Your task to perform on an android device: change the clock style Image 0: 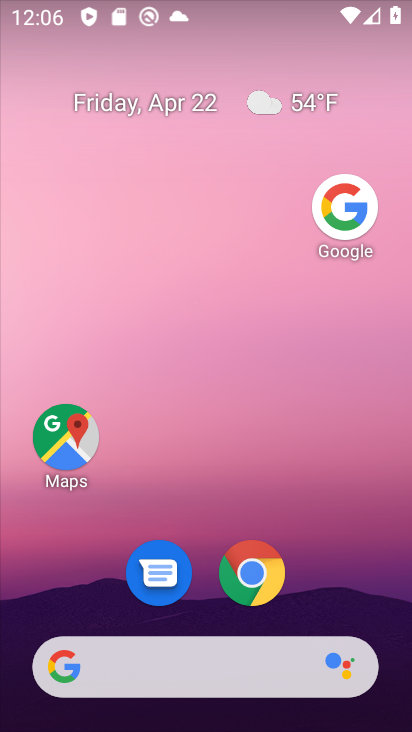
Step 0: drag from (236, 589) to (335, 11)
Your task to perform on an android device: change the clock style Image 1: 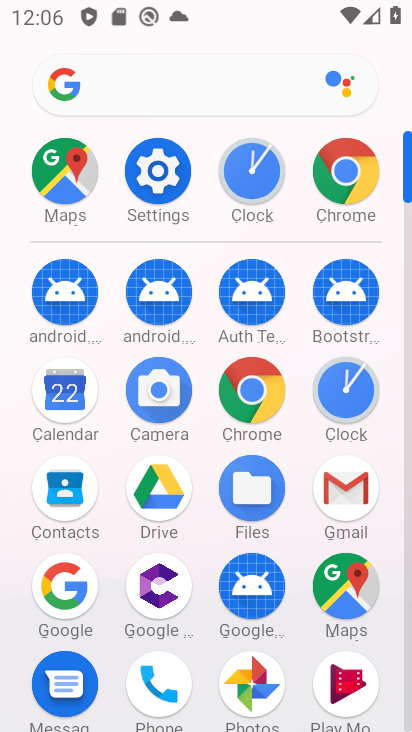
Step 1: click (245, 167)
Your task to perform on an android device: change the clock style Image 2: 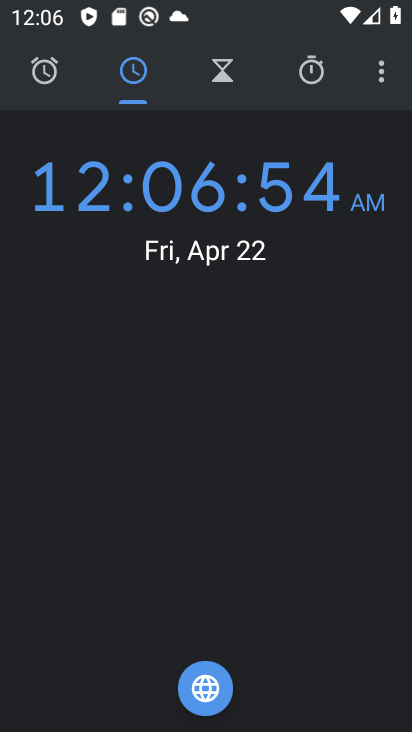
Step 2: click (381, 77)
Your task to perform on an android device: change the clock style Image 3: 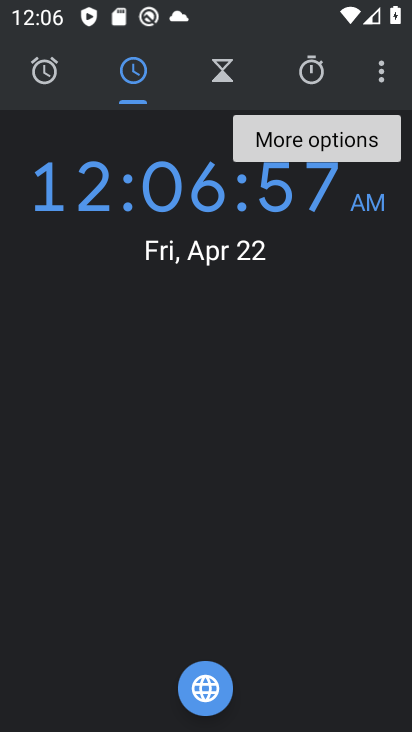
Step 3: click (382, 83)
Your task to perform on an android device: change the clock style Image 4: 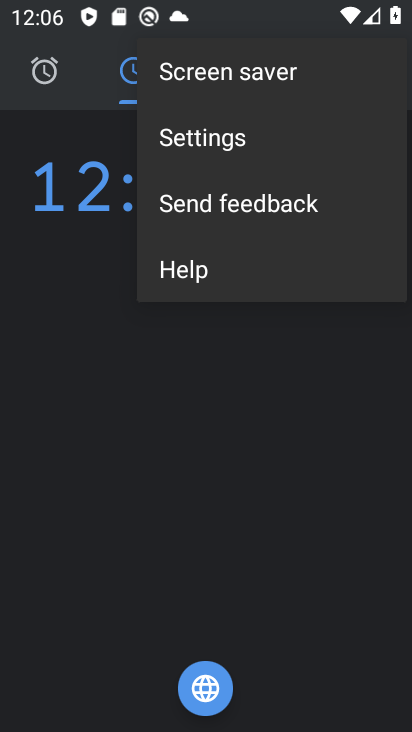
Step 4: click (212, 149)
Your task to perform on an android device: change the clock style Image 5: 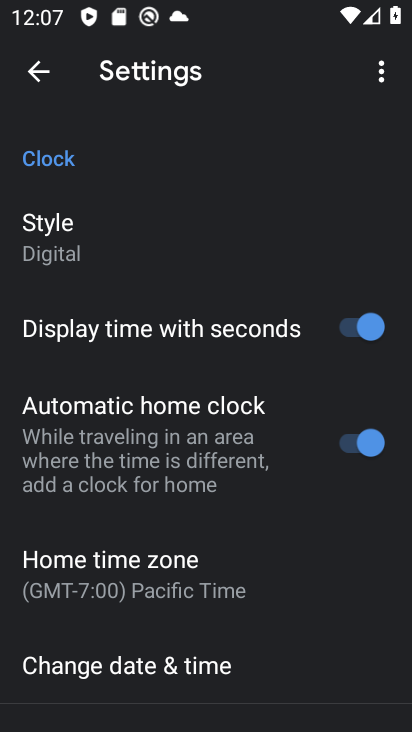
Step 5: click (51, 235)
Your task to perform on an android device: change the clock style Image 6: 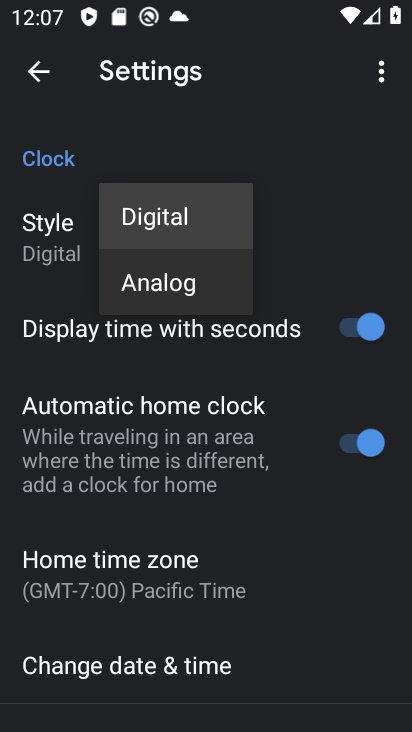
Step 6: click (170, 292)
Your task to perform on an android device: change the clock style Image 7: 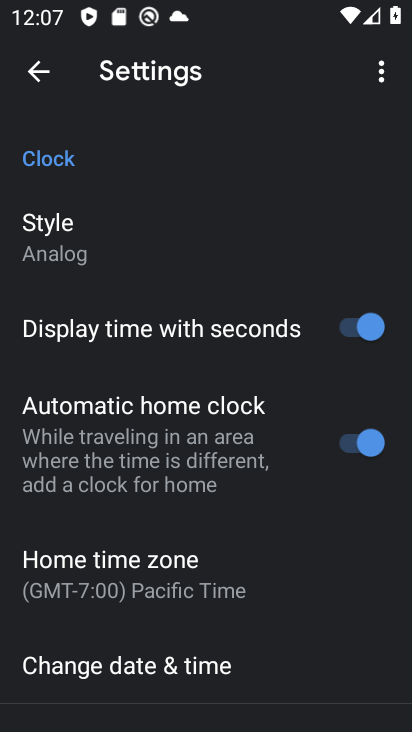
Step 7: task complete